Your task to perform on an android device: check android version Image 0: 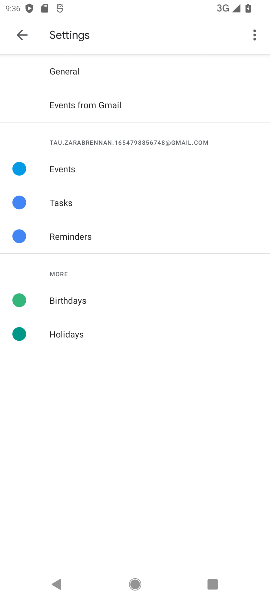
Step 0: press home button
Your task to perform on an android device: check android version Image 1: 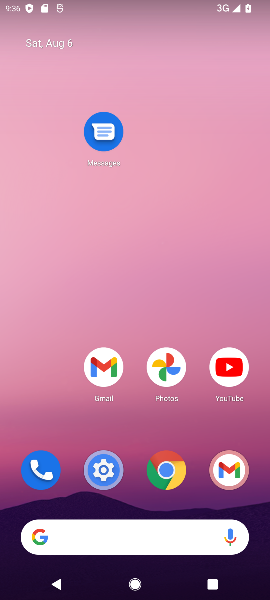
Step 1: drag from (188, 480) to (180, 171)
Your task to perform on an android device: check android version Image 2: 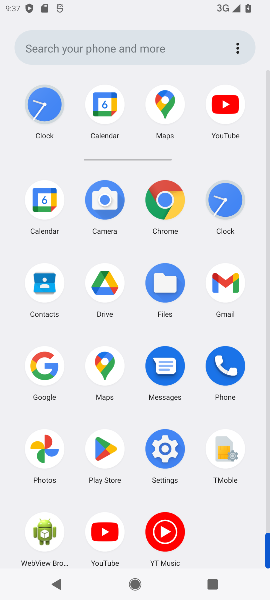
Step 2: click (170, 457)
Your task to perform on an android device: check android version Image 3: 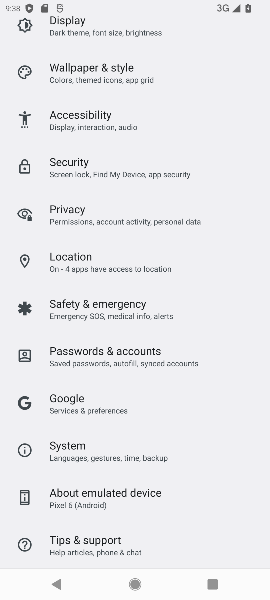
Step 3: drag from (154, 370) to (137, 195)
Your task to perform on an android device: check android version Image 4: 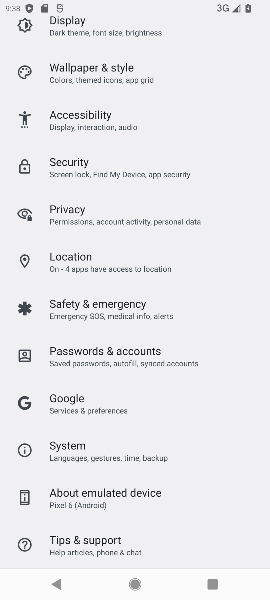
Step 4: drag from (137, 175) to (142, 399)
Your task to perform on an android device: check android version Image 5: 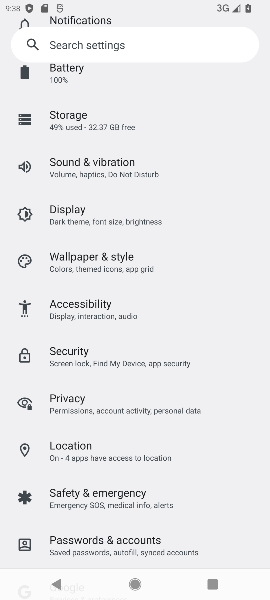
Step 5: drag from (102, 283) to (105, 527)
Your task to perform on an android device: check android version Image 6: 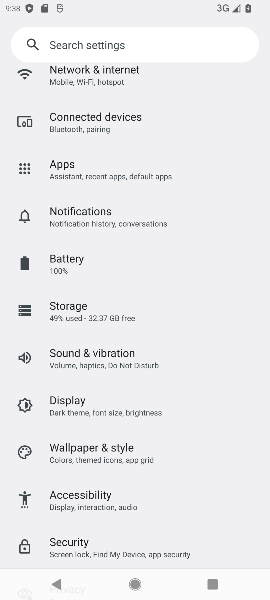
Step 6: drag from (106, 265) to (109, 410)
Your task to perform on an android device: check android version Image 7: 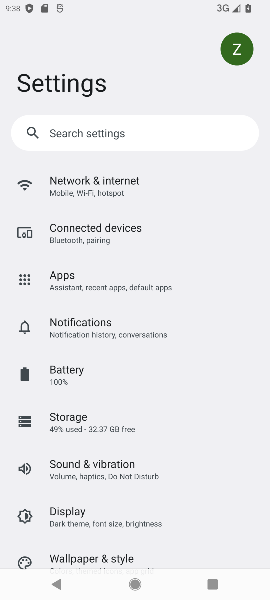
Step 7: drag from (123, 428) to (92, 126)
Your task to perform on an android device: check android version Image 8: 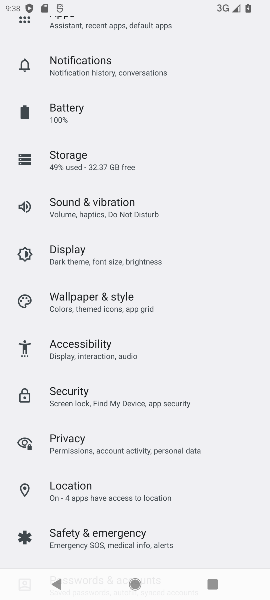
Step 8: drag from (97, 405) to (102, 88)
Your task to perform on an android device: check android version Image 9: 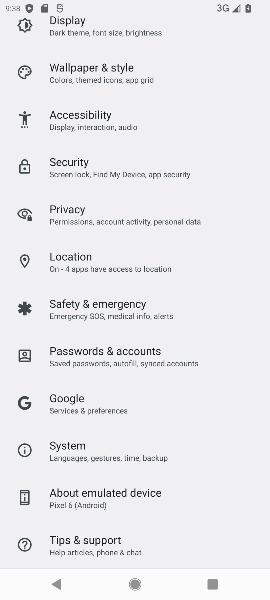
Step 9: click (101, 496)
Your task to perform on an android device: check android version Image 10: 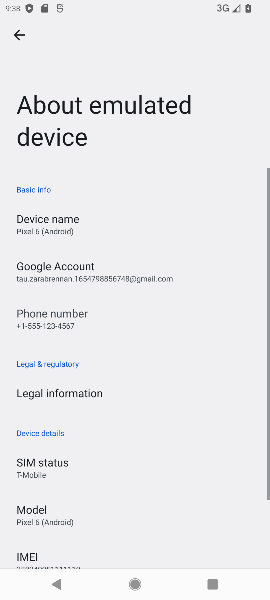
Step 10: drag from (114, 448) to (117, 121)
Your task to perform on an android device: check android version Image 11: 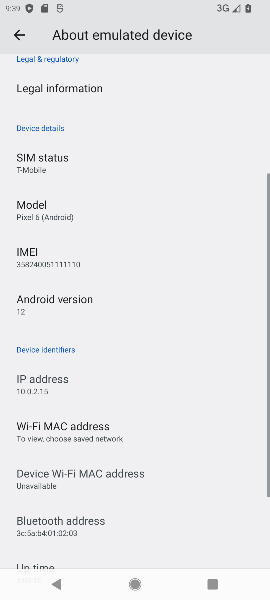
Step 11: drag from (84, 419) to (64, 254)
Your task to perform on an android device: check android version Image 12: 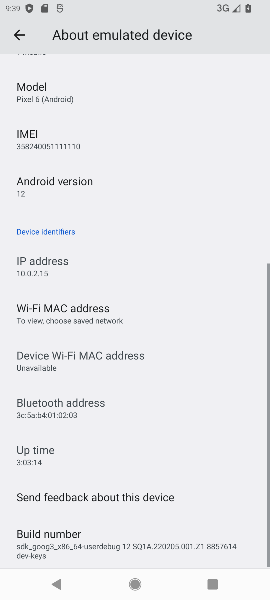
Step 12: click (80, 178)
Your task to perform on an android device: check android version Image 13: 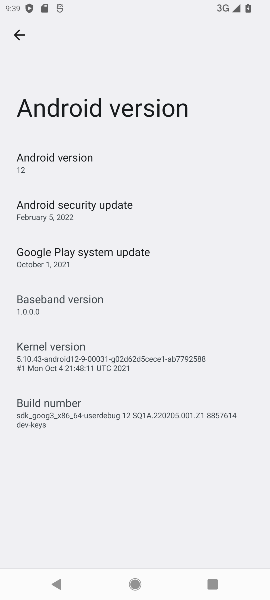
Step 13: click (56, 161)
Your task to perform on an android device: check android version Image 14: 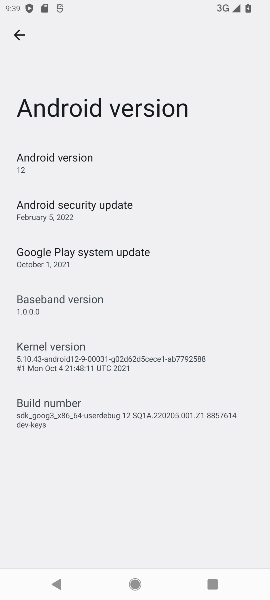
Step 14: task complete